Your task to perform on an android device: set default search engine in the chrome app Image 0: 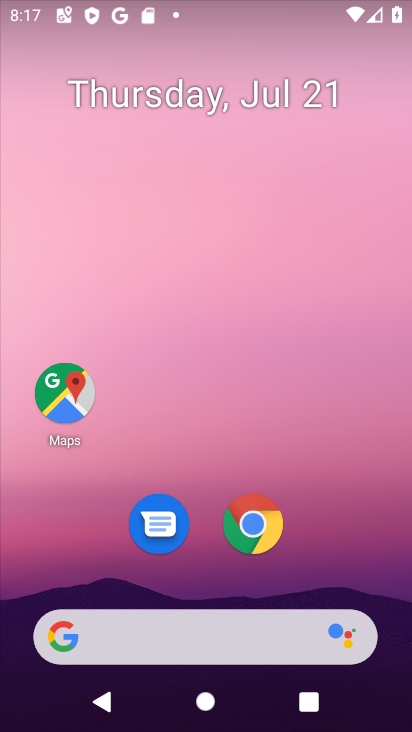
Step 0: press home button
Your task to perform on an android device: set default search engine in the chrome app Image 1: 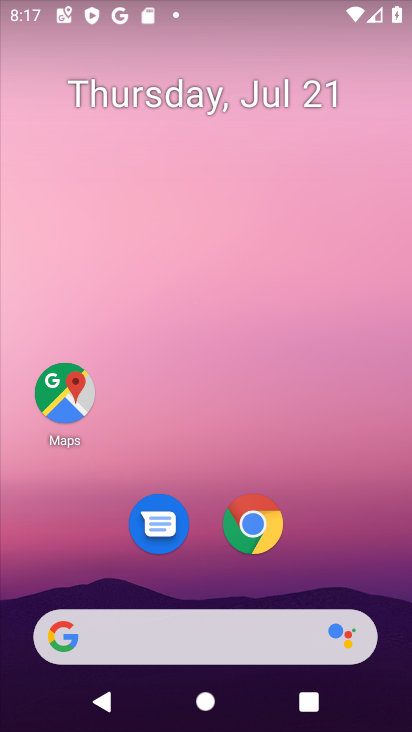
Step 1: click (263, 528)
Your task to perform on an android device: set default search engine in the chrome app Image 2: 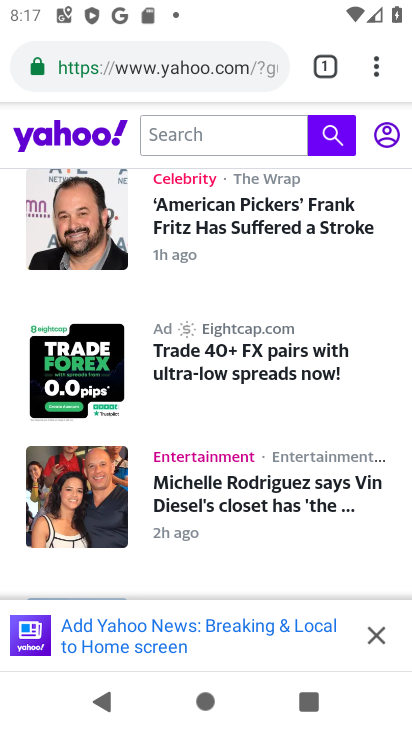
Step 2: drag from (375, 68) to (184, 517)
Your task to perform on an android device: set default search engine in the chrome app Image 3: 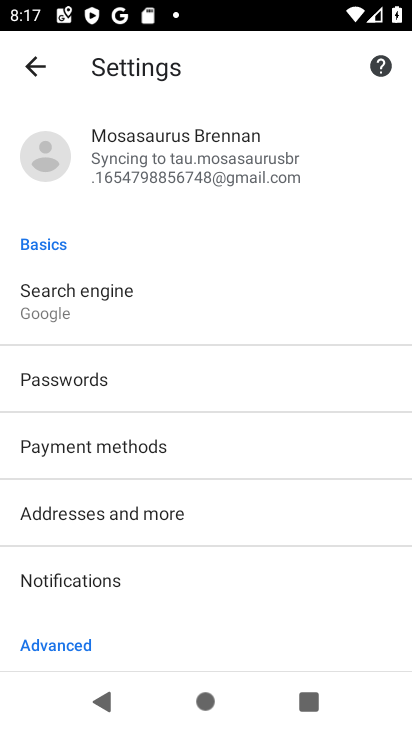
Step 3: click (89, 302)
Your task to perform on an android device: set default search engine in the chrome app Image 4: 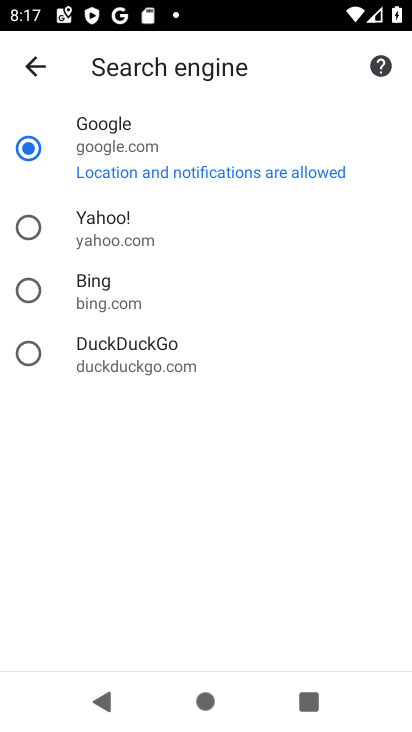
Step 4: click (31, 229)
Your task to perform on an android device: set default search engine in the chrome app Image 5: 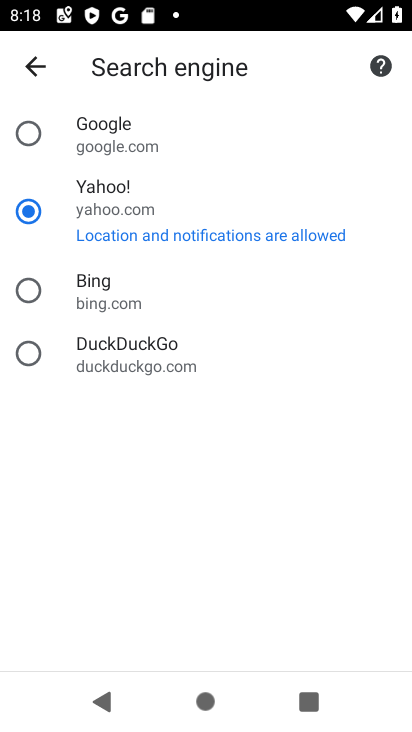
Step 5: task complete